Your task to perform on an android device: What's the weather today? Image 0: 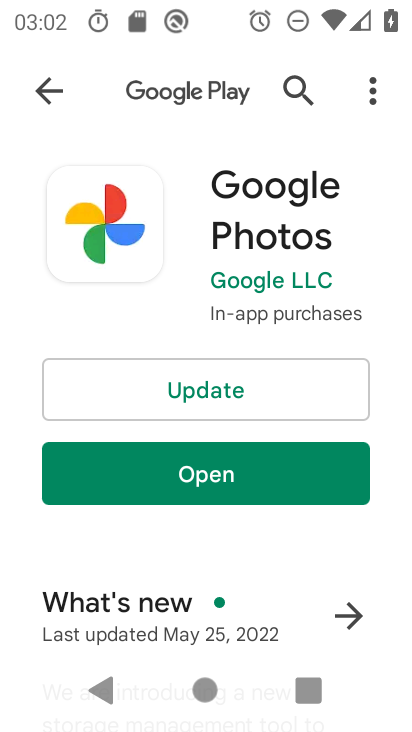
Step 0: press home button
Your task to perform on an android device: What's the weather today? Image 1: 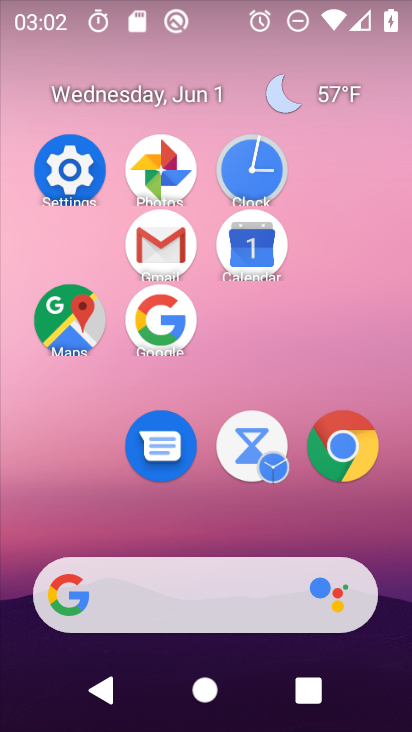
Step 1: click (145, 324)
Your task to perform on an android device: What's the weather today? Image 2: 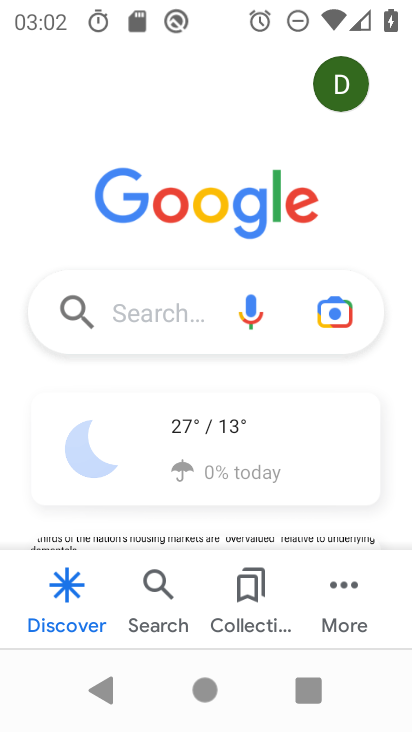
Step 2: click (133, 296)
Your task to perform on an android device: What's the weather today? Image 3: 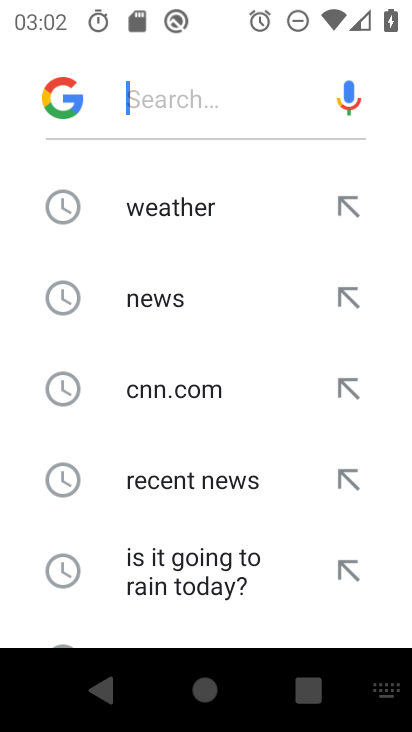
Step 3: click (175, 192)
Your task to perform on an android device: What's the weather today? Image 4: 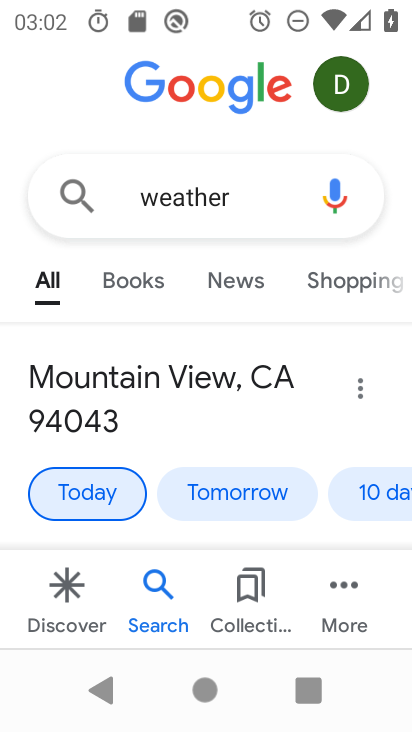
Step 4: task complete